Your task to perform on an android device: What's the weather going to be tomorrow? Image 0: 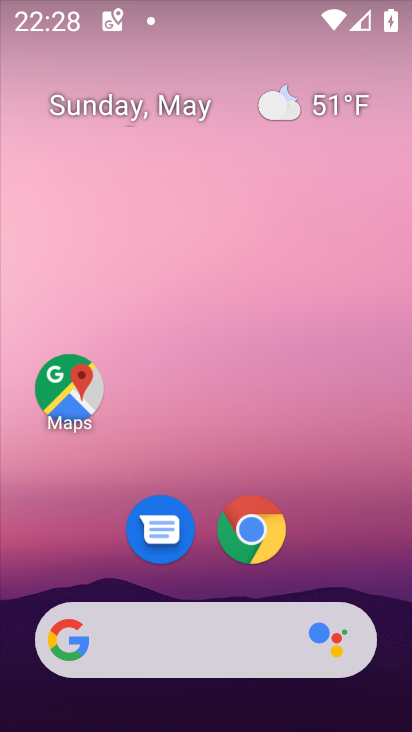
Step 0: drag from (287, 625) to (277, 60)
Your task to perform on an android device: What's the weather going to be tomorrow? Image 1: 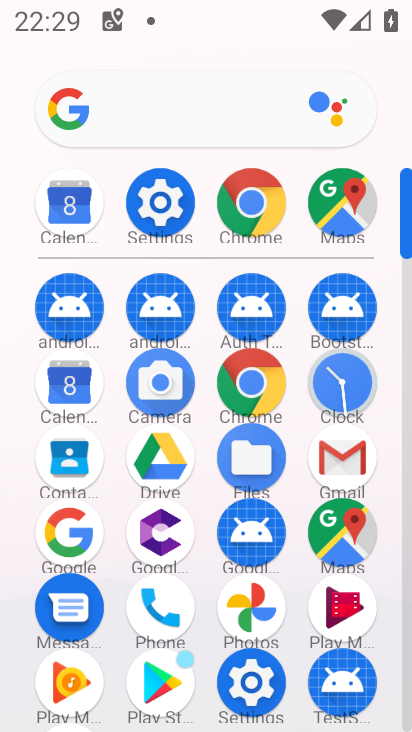
Step 1: click (248, 375)
Your task to perform on an android device: What's the weather going to be tomorrow? Image 2: 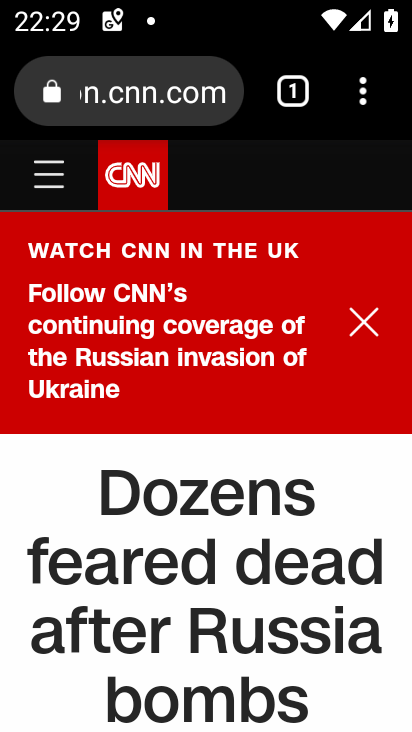
Step 2: click (101, 100)
Your task to perform on an android device: What's the weather going to be tomorrow? Image 3: 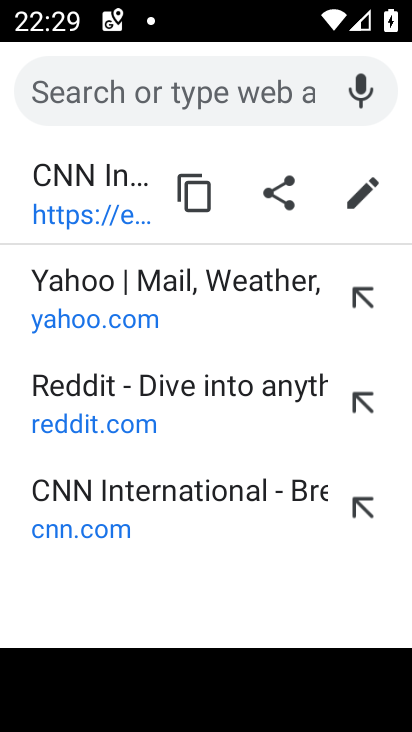
Step 3: type "weather going to be tomorrow"
Your task to perform on an android device: What's the weather going to be tomorrow? Image 4: 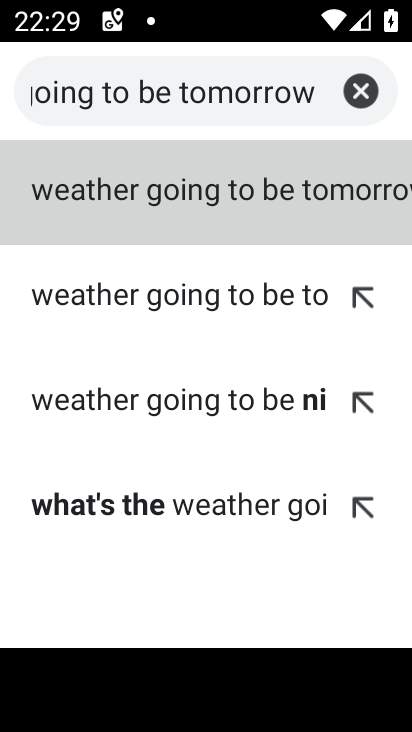
Step 4: click (242, 207)
Your task to perform on an android device: What's the weather going to be tomorrow? Image 5: 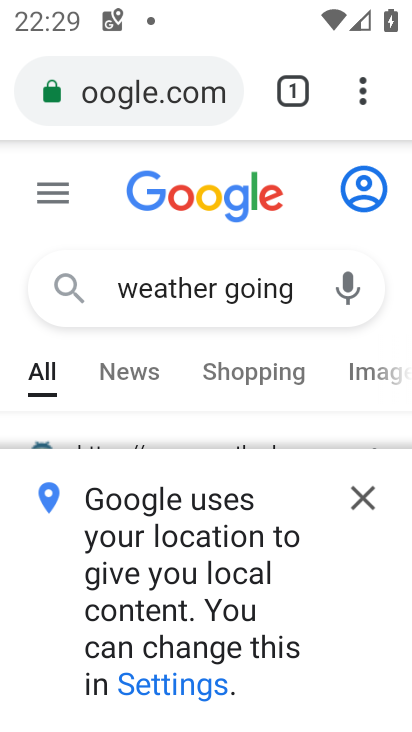
Step 5: task complete